Your task to perform on an android device: Open the map Image 0: 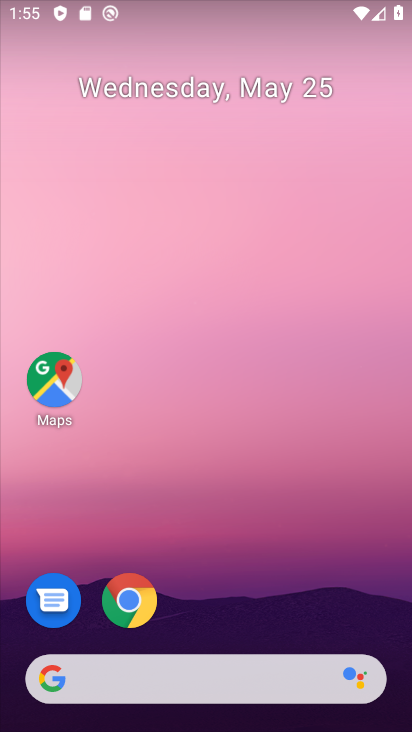
Step 0: click (49, 371)
Your task to perform on an android device: Open the map Image 1: 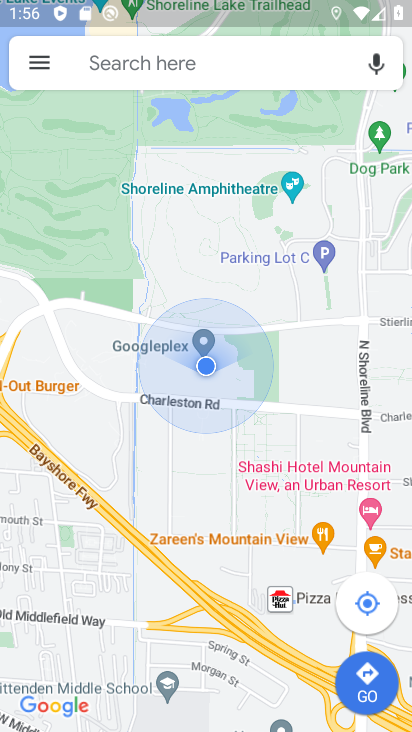
Step 1: task complete